Your task to perform on an android device: Open my contact list Image 0: 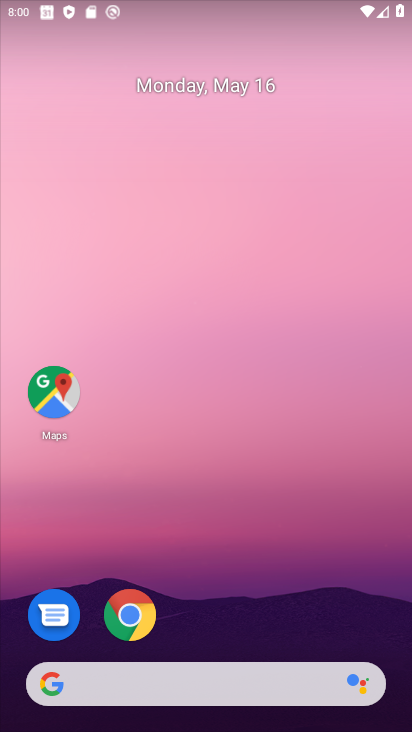
Step 0: drag from (243, 679) to (233, 258)
Your task to perform on an android device: Open my contact list Image 1: 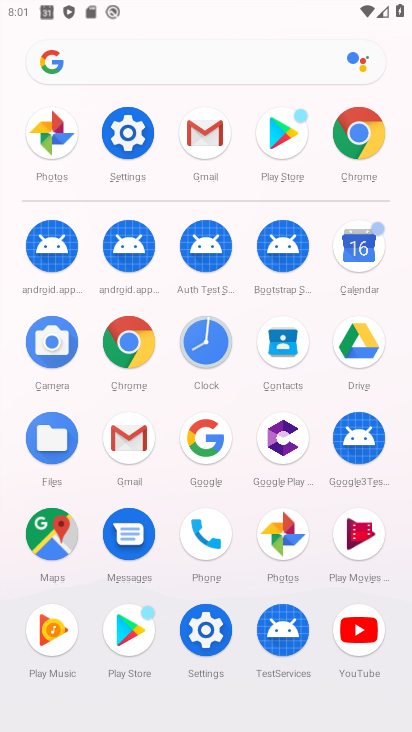
Step 1: click (300, 345)
Your task to perform on an android device: Open my contact list Image 2: 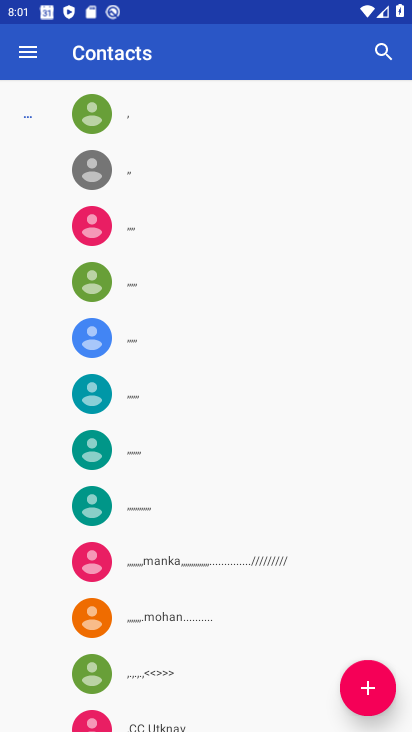
Step 2: click (359, 696)
Your task to perform on an android device: Open my contact list Image 3: 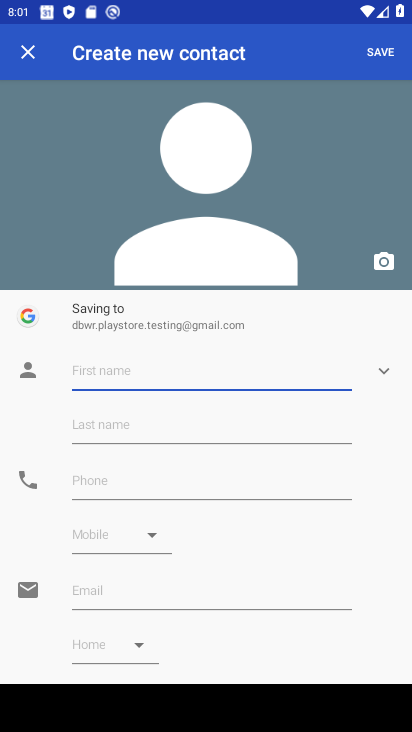
Step 3: type "good"
Your task to perform on an android device: Open my contact list Image 4: 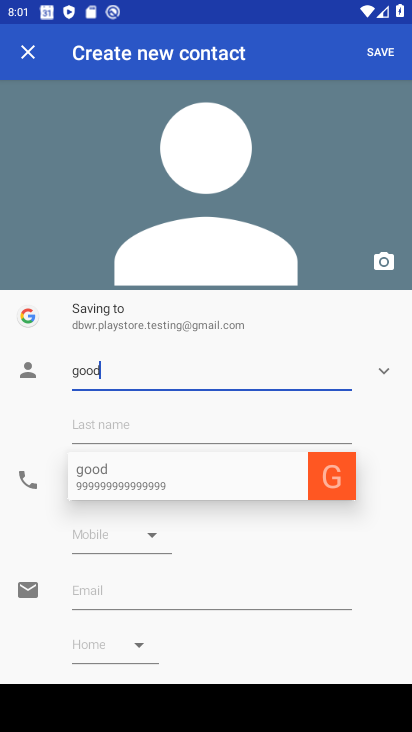
Step 4: click (211, 383)
Your task to perform on an android device: Open my contact list Image 5: 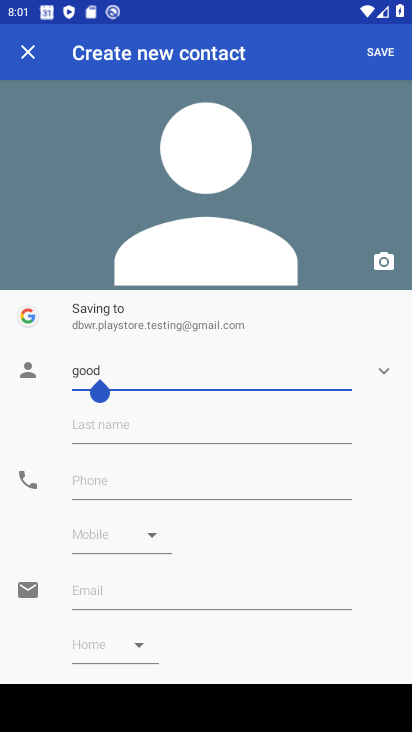
Step 5: type "y"
Your task to perform on an android device: Open my contact list Image 6: 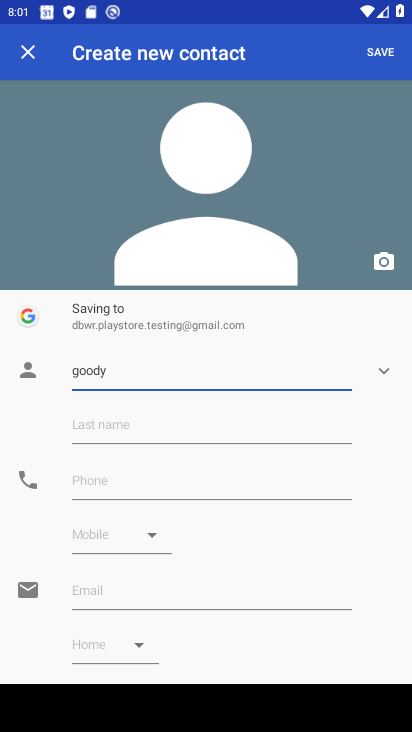
Step 6: click (145, 486)
Your task to perform on an android device: Open my contact list Image 7: 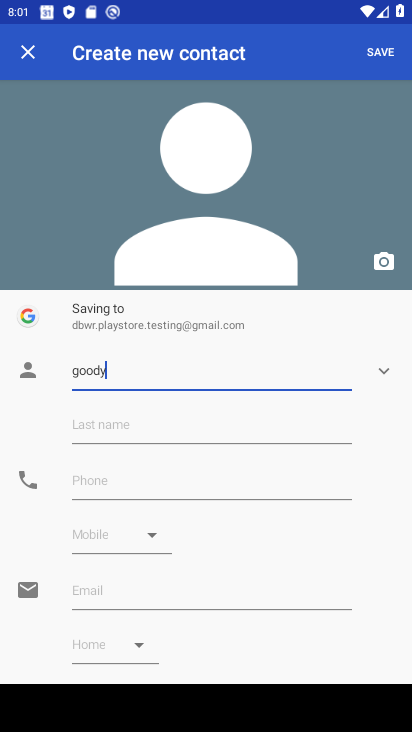
Step 7: click (145, 486)
Your task to perform on an android device: Open my contact list Image 8: 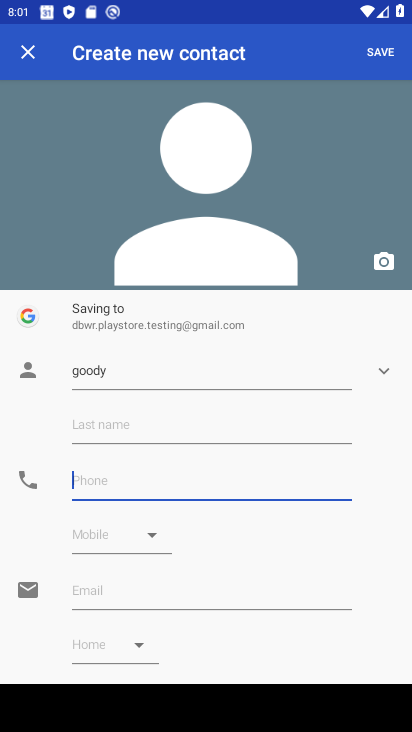
Step 8: type "7973495349"
Your task to perform on an android device: Open my contact list Image 9: 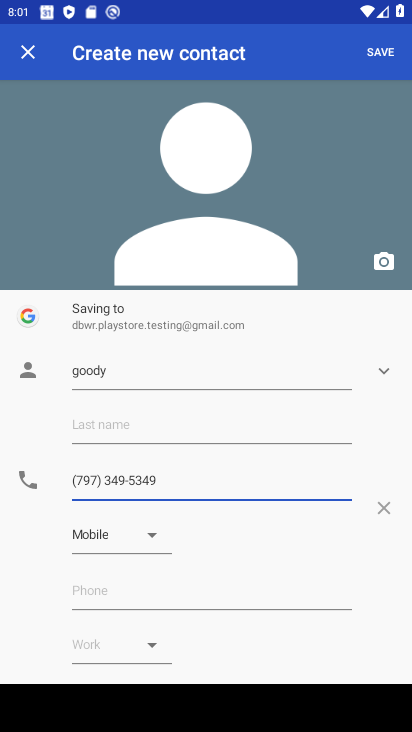
Step 9: click (386, 62)
Your task to perform on an android device: Open my contact list Image 10: 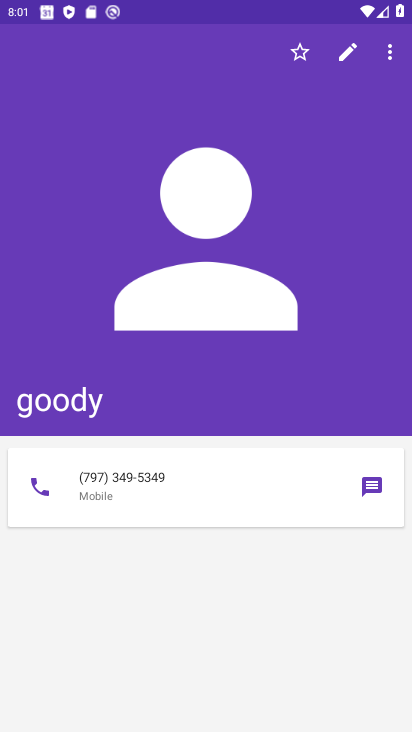
Step 10: task complete